Your task to perform on an android device: turn off priority inbox in the gmail app Image 0: 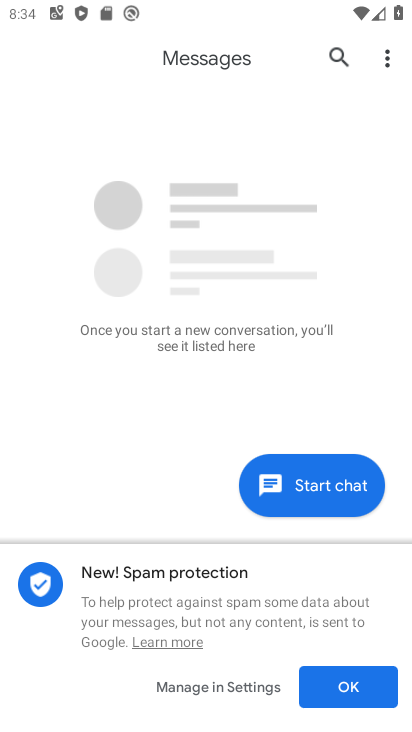
Step 0: press home button
Your task to perform on an android device: turn off priority inbox in the gmail app Image 1: 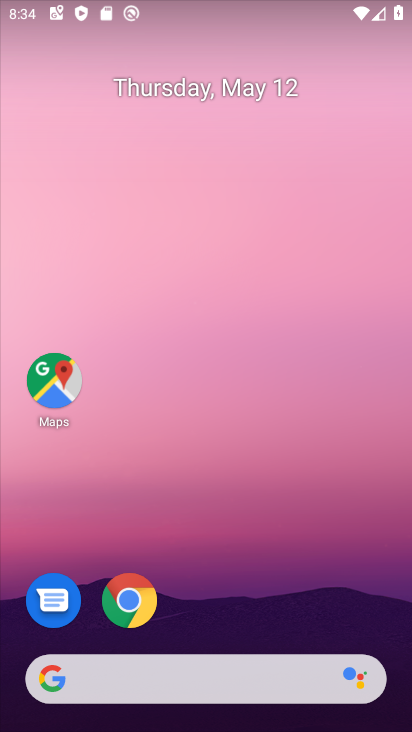
Step 1: drag from (241, 607) to (216, 169)
Your task to perform on an android device: turn off priority inbox in the gmail app Image 2: 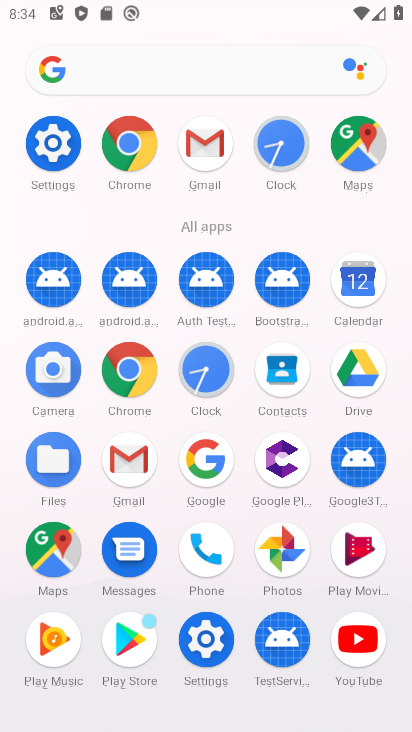
Step 2: click (221, 169)
Your task to perform on an android device: turn off priority inbox in the gmail app Image 3: 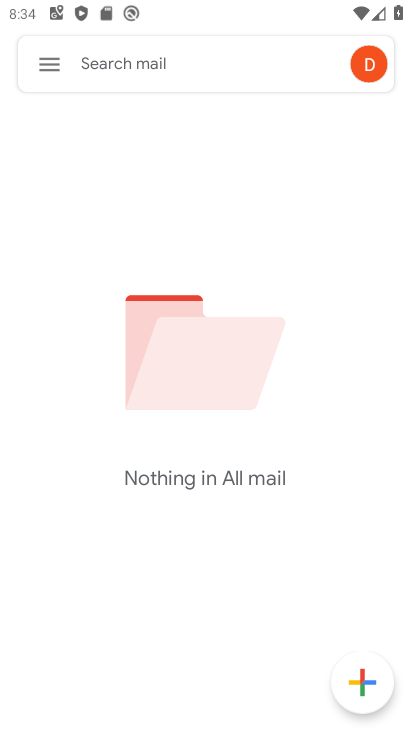
Step 3: click (51, 70)
Your task to perform on an android device: turn off priority inbox in the gmail app Image 4: 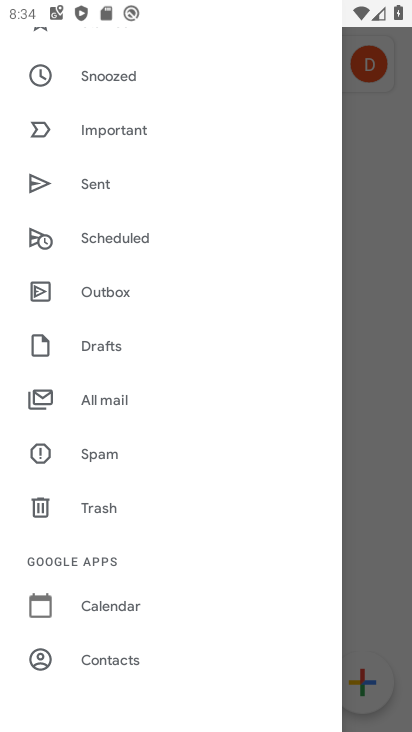
Step 4: drag from (131, 647) to (152, 400)
Your task to perform on an android device: turn off priority inbox in the gmail app Image 5: 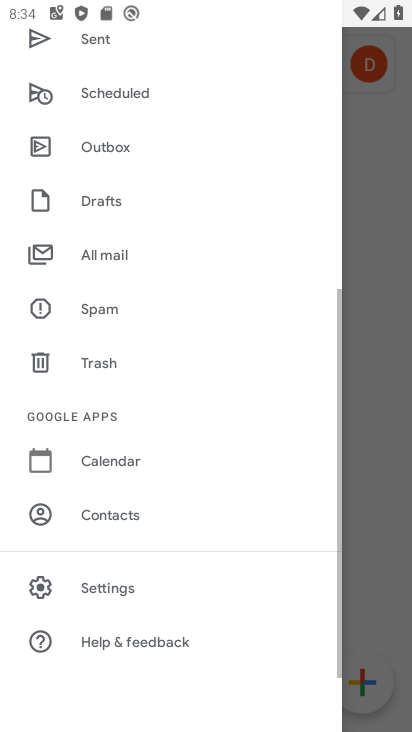
Step 5: click (130, 590)
Your task to perform on an android device: turn off priority inbox in the gmail app Image 6: 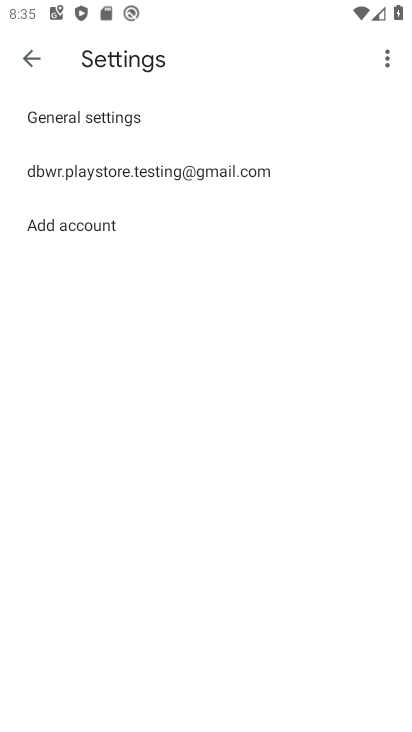
Step 6: click (146, 179)
Your task to perform on an android device: turn off priority inbox in the gmail app Image 7: 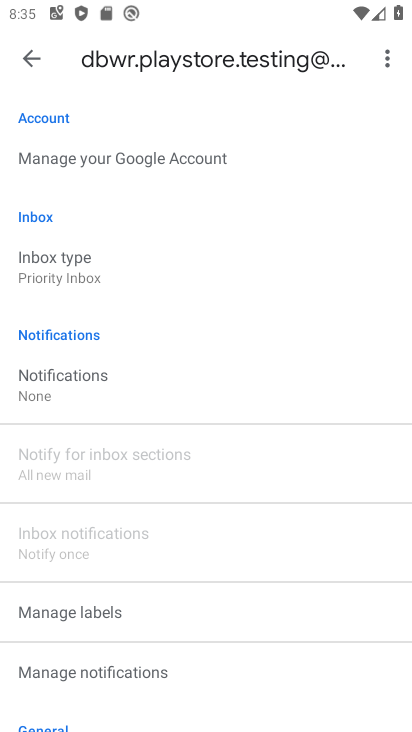
Step 7: click (53, 280)
Your task to perform on an android device: turn off priority inbox in the gmail app Image 8: 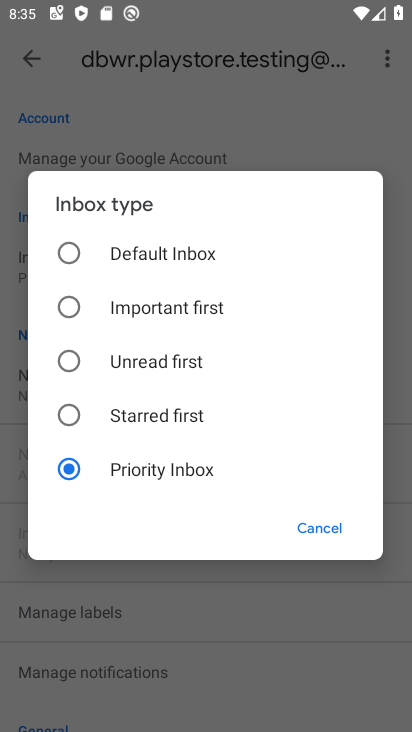
Step 8: click (72, 257)
Your task to perform on an android device: turn off priority inbox in the gmail app Image 9: 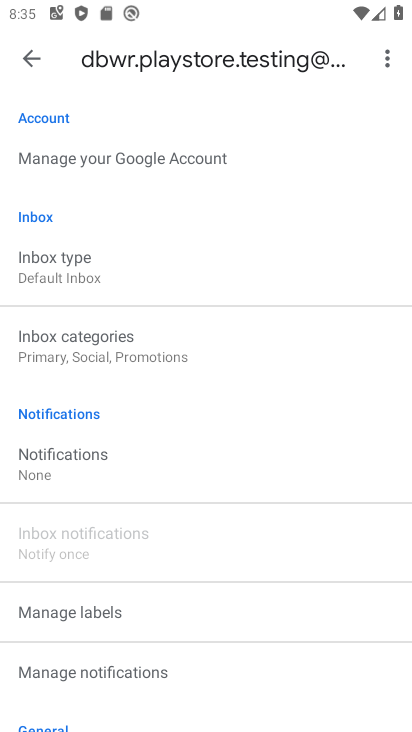
Step 9: task complete